Your task to perform on an android device: Open display settings Image 0: 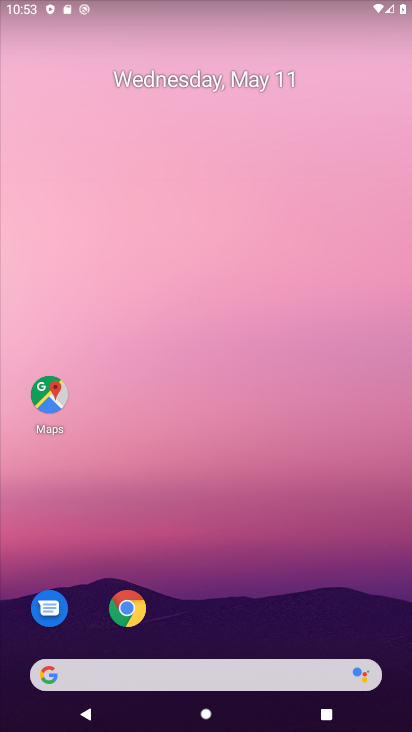
Step 0: drag from (389, 614) to (184, 17)
Your task to perform on an android device: Open display settings Image 1: 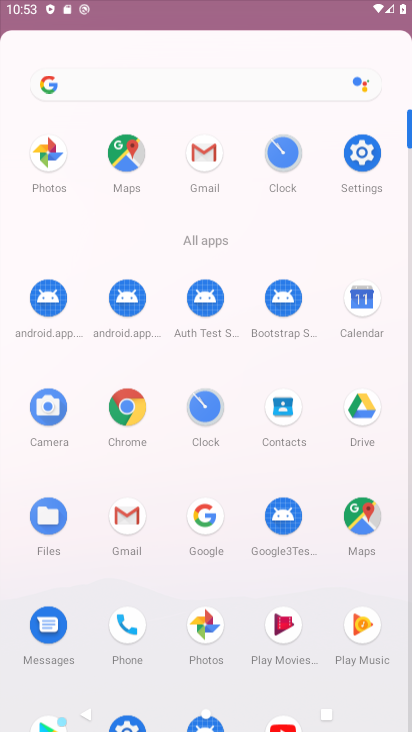
Step 1: drag from (272, 539) to (226, 58)
Your task to perform on an android device: Open display settings Image 2: 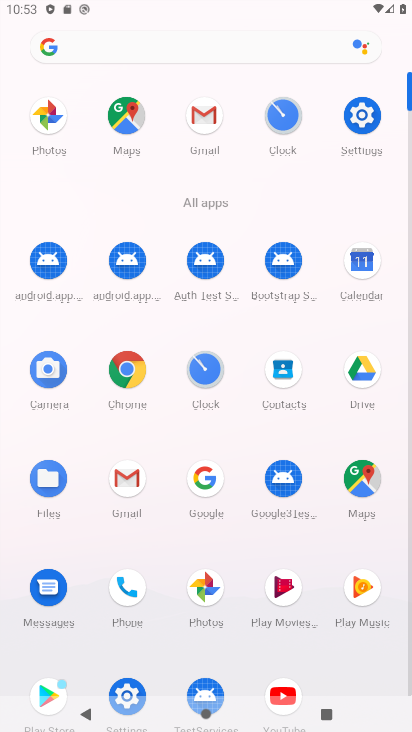
Step 2: click (357, 103)
Your task to perform on an android device: Open display settings Image 3: 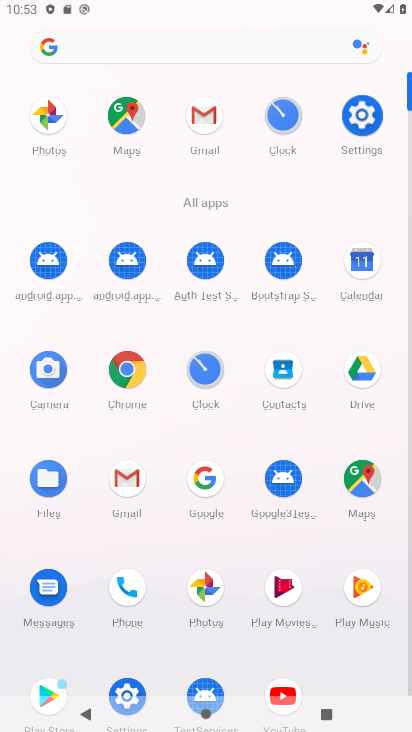
Step 3: click (359, 104)
Your task to perform on an android device: Open display settings Image 4: 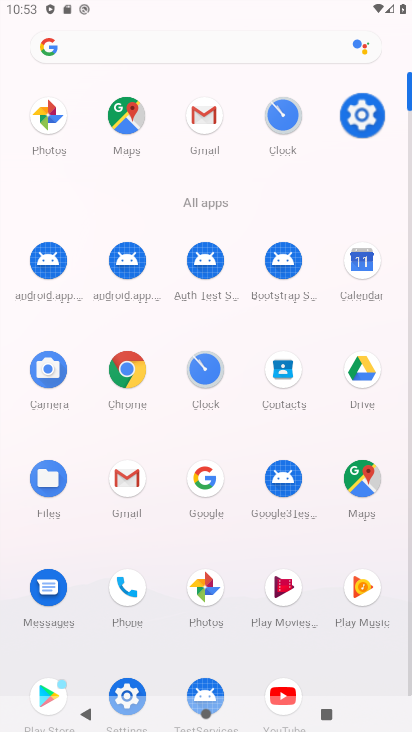
Step 4: click (360, 115)
Your task to perform on an android device: Open display settings Image 5: 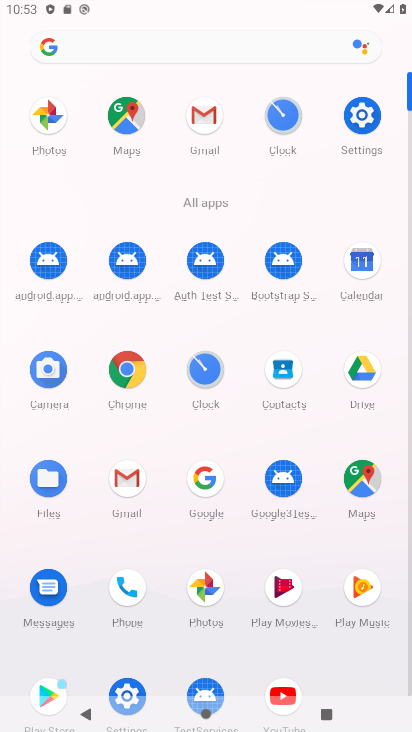
Step 5: click (358, 112)
Your task to perform on an android device: Open display settings Image 6: 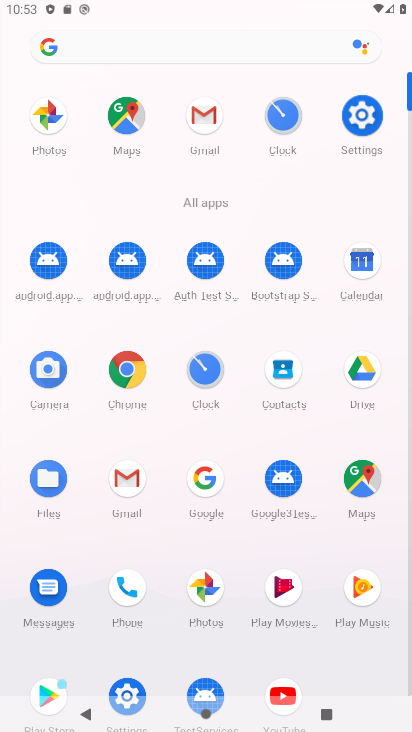
Step 6: click (358, 112)
Your task to perform on an android device: Open display settings Image 7: 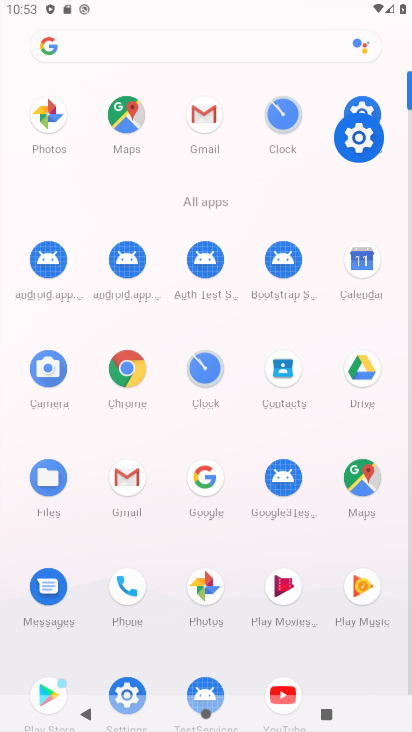
Step 7: click (358, 112)
Your task to perform on an android device: Open display settings Image 8: 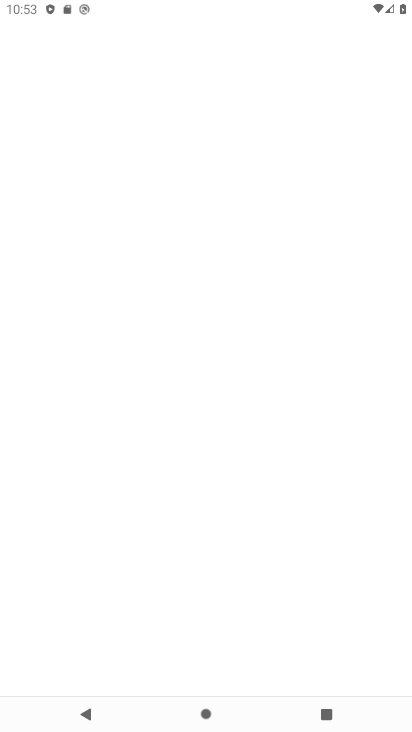
Step 8: click (356, 112)
Your task to perform on an android device: Open display settings Image 9: 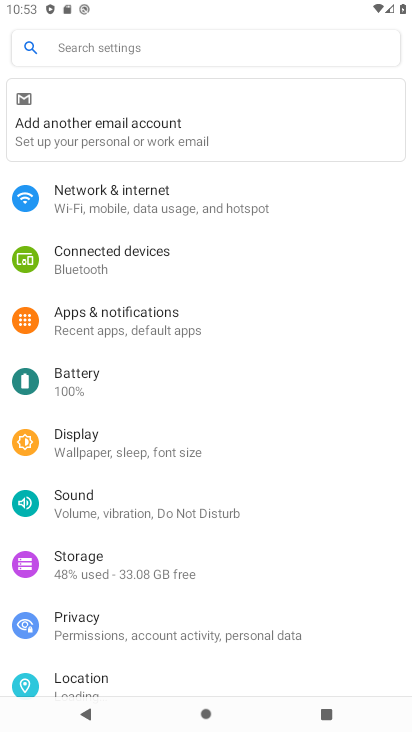
Step 9: click (80, 444)
Your task to perform on an android device: Open display settings Image 10: 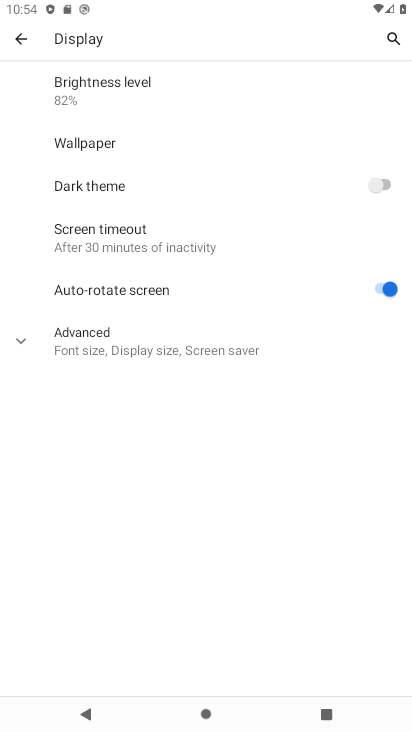
Step 10: task complete